Your task to perform on an android device: install app "Google Photos" Image 0: 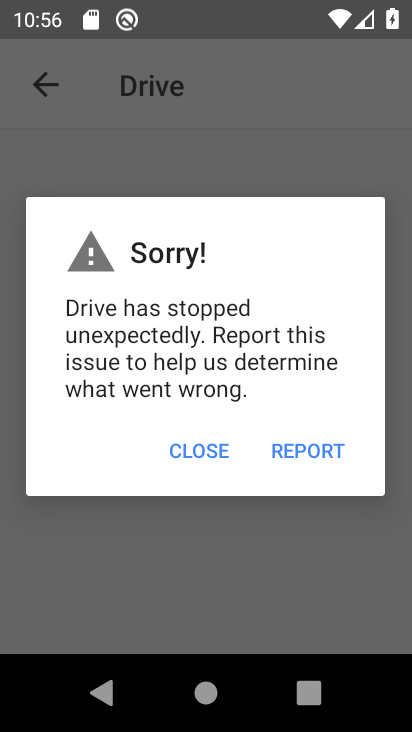
Step 0: press home button
Your task to perform on an android device: install app "Google Photos" Image 1: 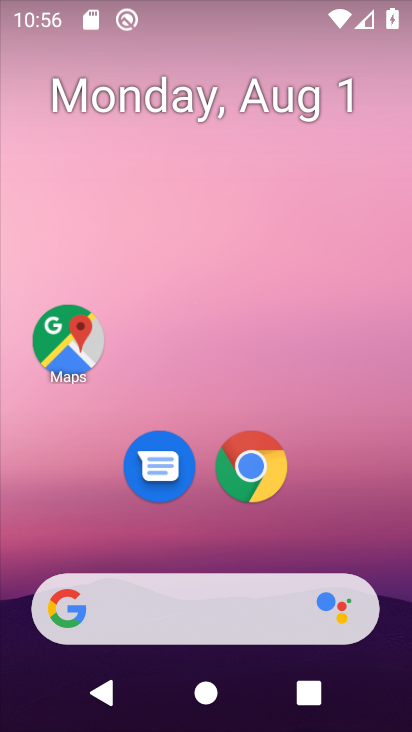
Step 1: drag from (234, 633) to (244, 99)
Your task to perform on an android device: install app "Google Photos" Image 2: 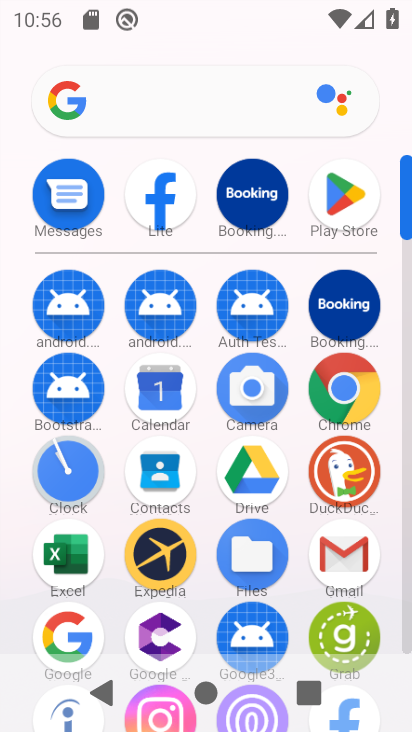
Step 2: click (340, 202)
Your task to perform on an android device: install app "Google Photos" Image 3: 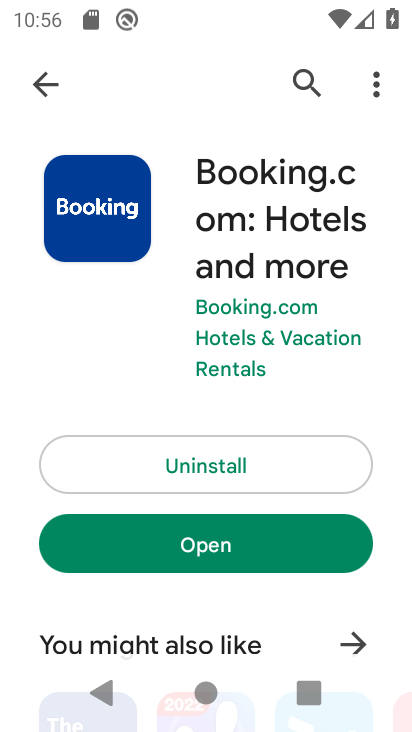
Step 3: click (303, 78)
Your task to perform on an android device: install app "Google Photos" Image 4: 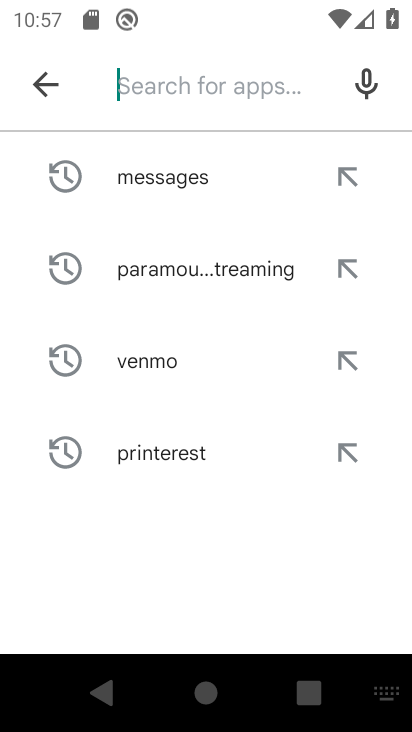
Step 4: type "Google Photos"
Your task to perform on an android device: install app "Google Photos" Image 5: 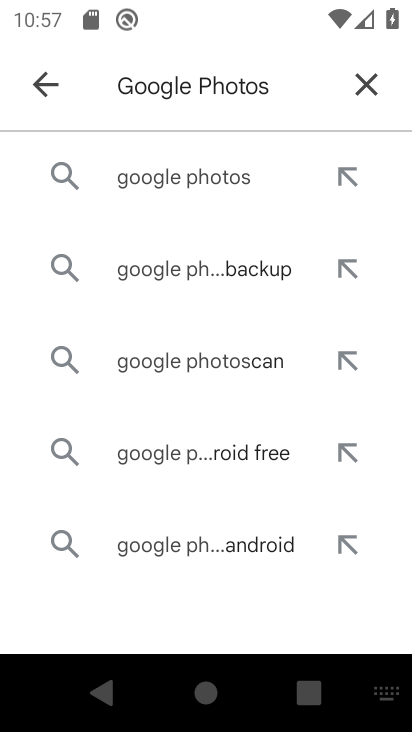
Step 5: click (176, 178)
Your task to perform on an android device: install app "Google Photos" Image 6: 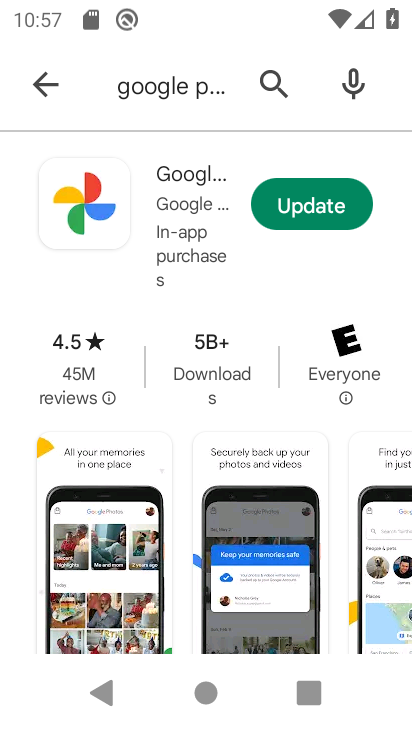
Step 6: task complete